Your task to perform on an android device: find photos in the google photos app Image 0: 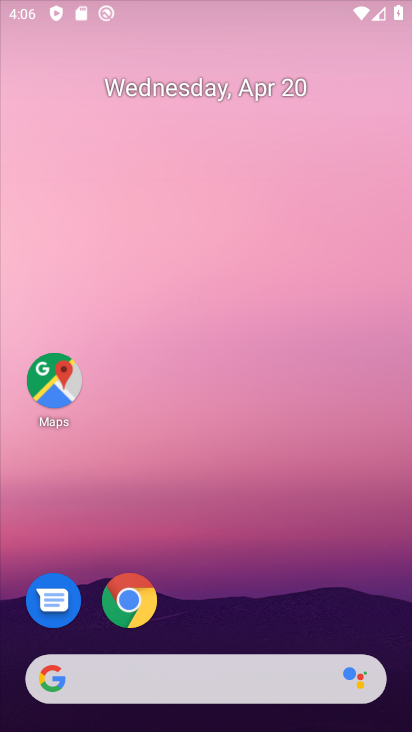
Step 0: drag from (226, 645) to (299, 123)
Your task to perform on an android device: find photos in the google photos app Image 1: 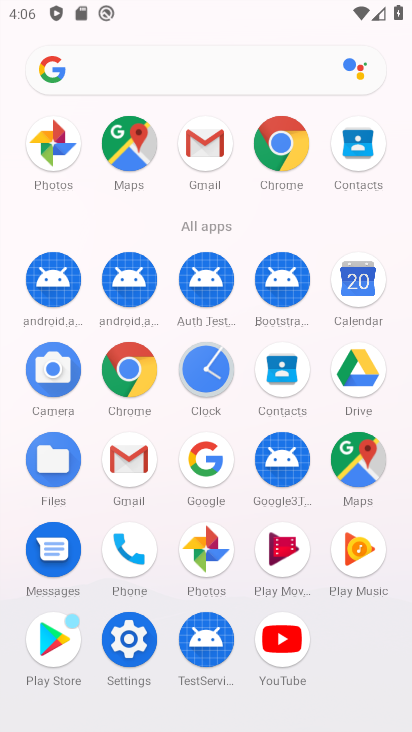
Step 1: click (204, 560)
Your task to perform on an android device: find photos in the google photos app Image 2: 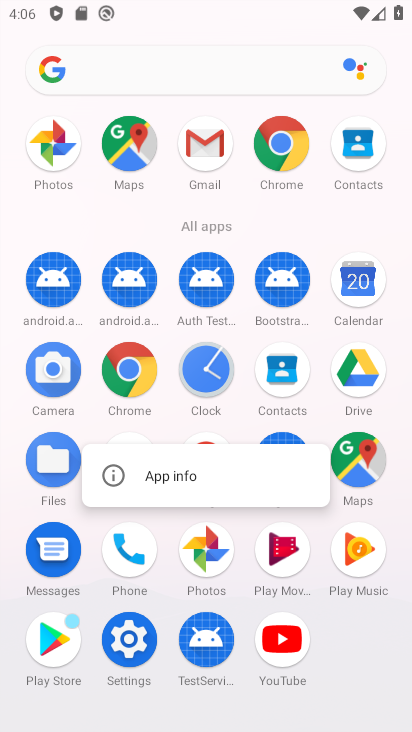
Step 2: click (206, 561)
Your task to perform on an android device: find photos in the google photos app Image 3: 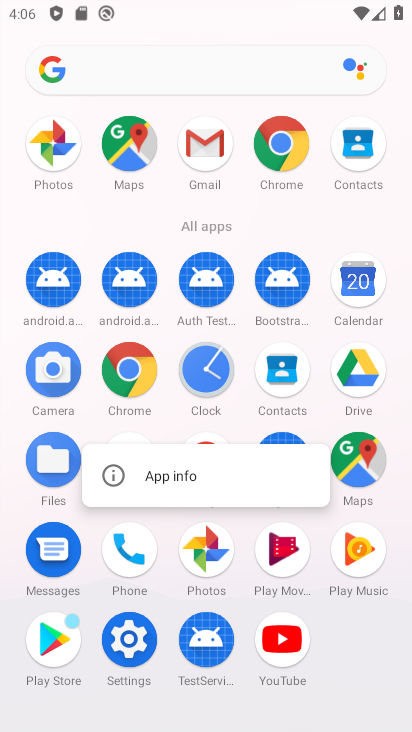
Step 3: click (206, 558)
Your task to perform on an android device: find photos in the google photos app Image 4: 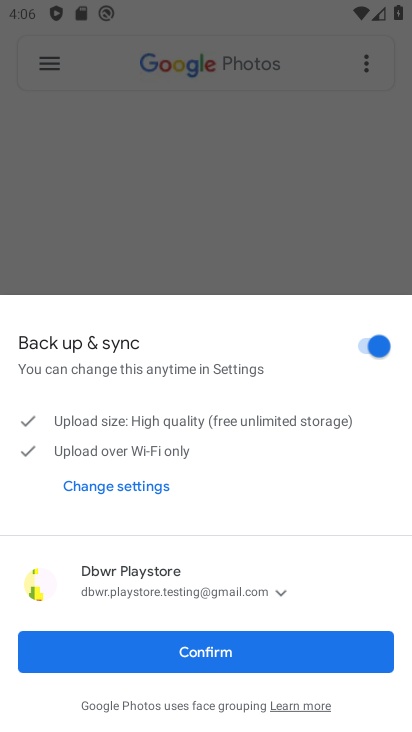
Step 4: click (210, 653)
Your task to perform on an android device: find photos in the google photos app Image 5: 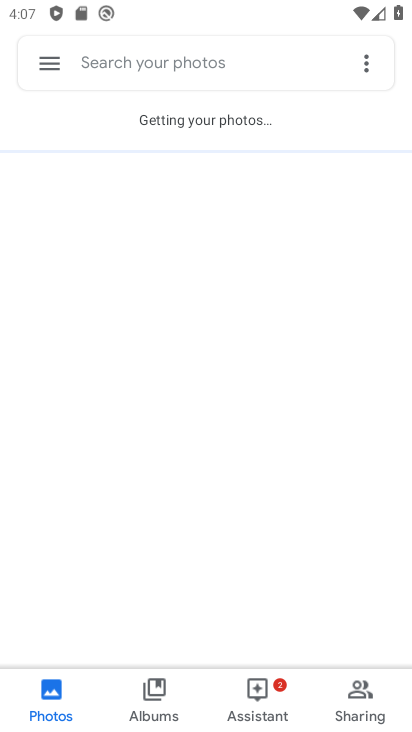
Step 5: click (274, 329)
Your task to perform on an android device: find photos in the google photos app Image 6: 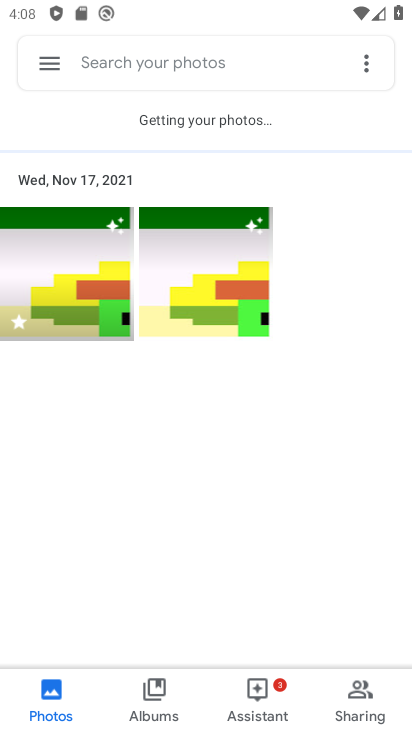
Step 6: task complete